Your task to perform on an android device: read, delete, or share a saved page in the chrome app Image 0: 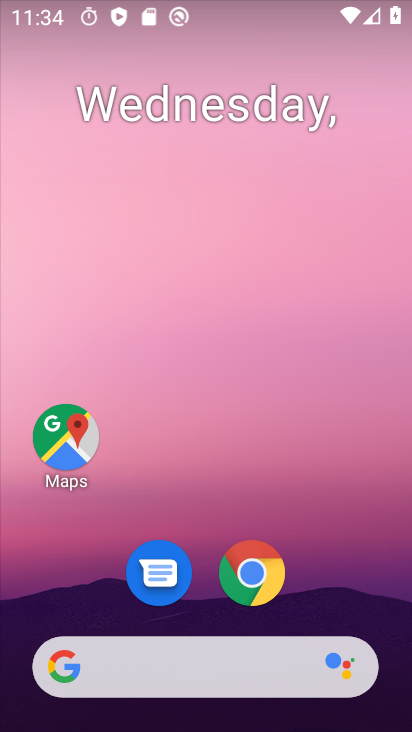
Step 0: click (370, 235)
Your task to perform on an android device: read, delete, or share a saved page in the chrome app Image 1: 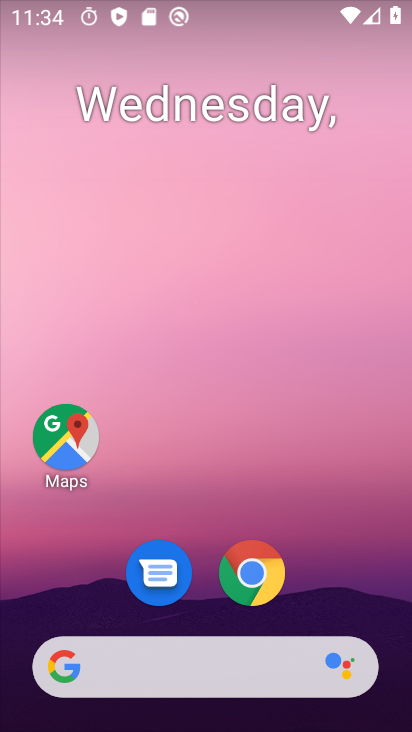
Step 1: drag from (375, 466) to (372, 176)
Your task to perform on an android device: read, delete, or share a saved page in the chrome app Image 2: 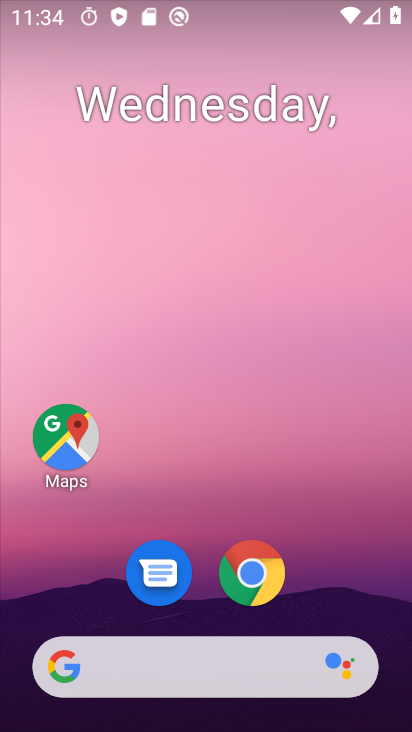
Step 2: click (257, 581)
Your task to perform on an android device: read, delete, or share a saved page in the chrome app Image 3: 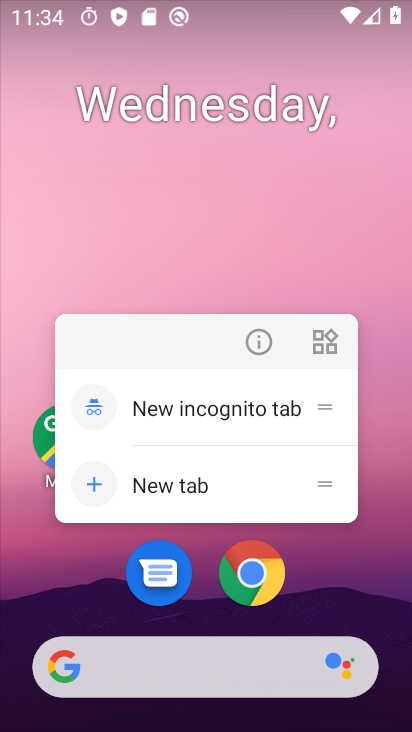
Step 3: click (254, 573)
Your task to perform on an android device: read, delete, or share a saved page in the chrome app Image 4: 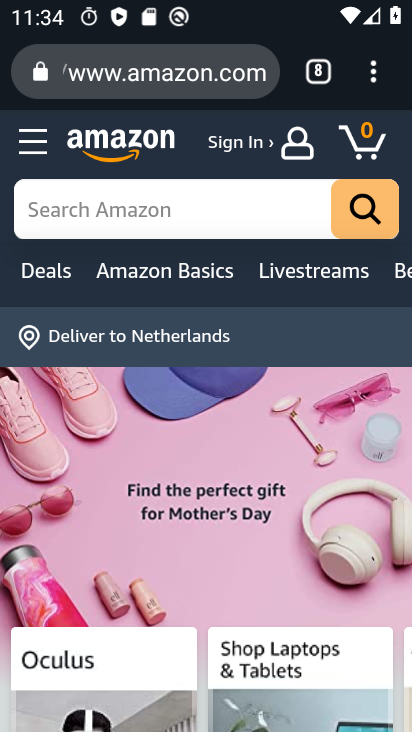
Step 4: click (374, 63)
Your task to perform on an android device: read, delete, or share a saved page in the chrome app Image 5: 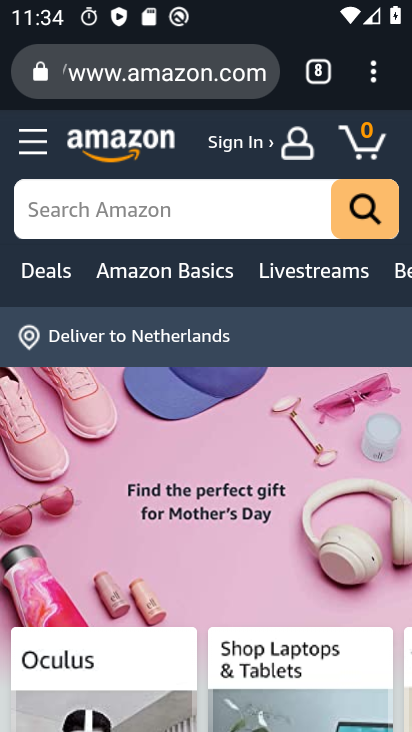
Step 5: click (374, 63)
Your task to perform on an android device: read, delete, or share a saved page in the chrome app Image 6: 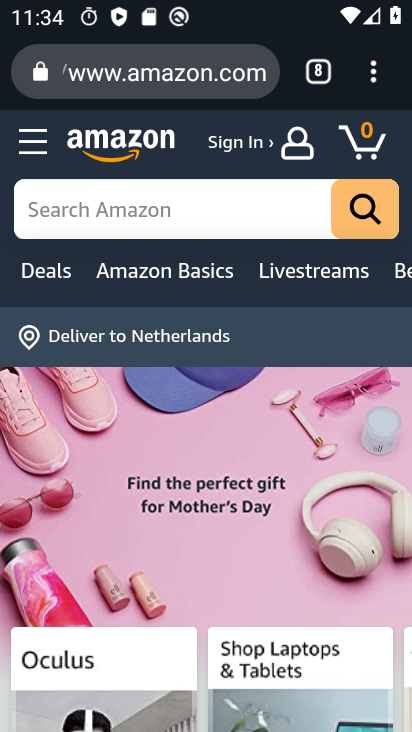
Step 6: click (372, 68)
Your task to perform on an android device: read, delete, or share a saved page in the chrome app Image 7: 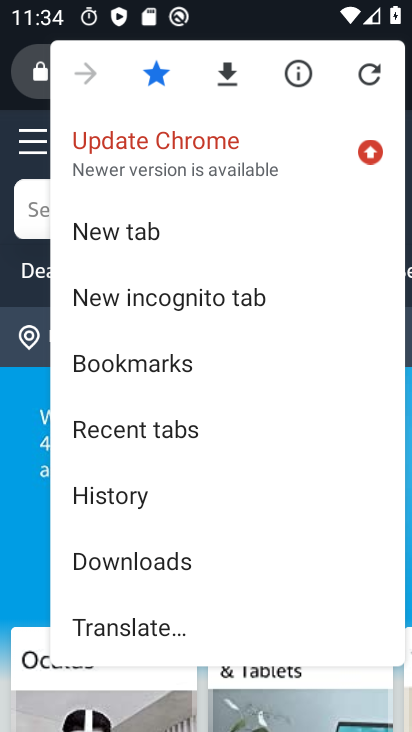
Step 7: drag from (277, 594) to (284, 288)
Your task to perform on an android device: read, delete, or share a saved page in the chrome app Image 8: 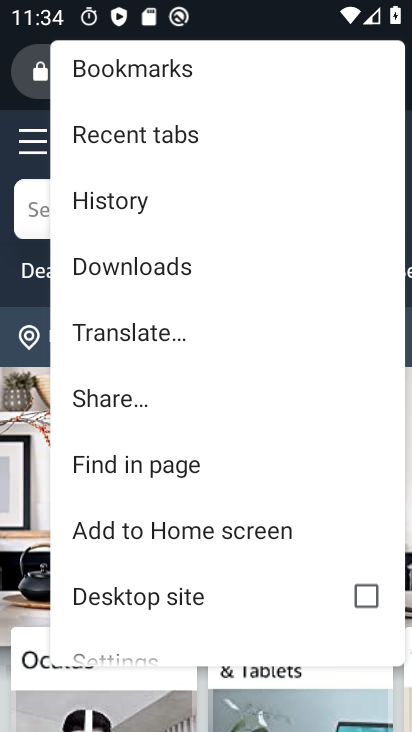
Step 8: drag from (325, 528) to (313, 273)
Your task to perform on an android device: read, delete, or share a saved page in the chrome app Image 9: 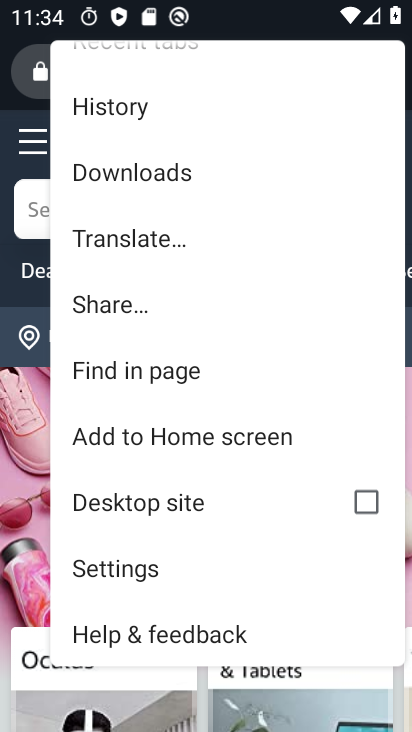
Step 9: drag from (255, 335) to (255, 222)
Your task to perform on an android device: read, delete, or share a saved page in the chrome app Image 10: 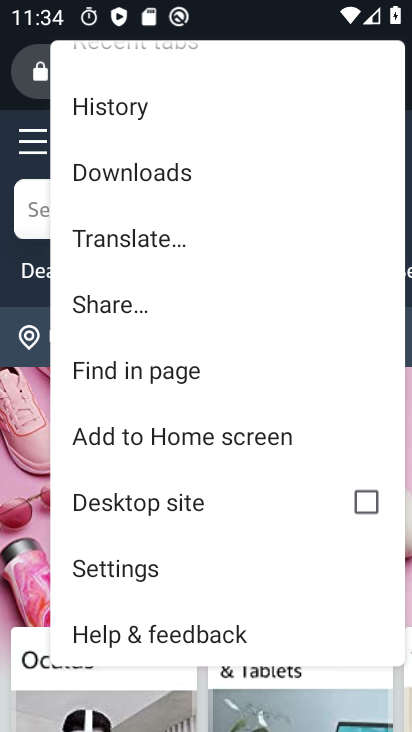
Step 10: drag from (277, 561) to (282, 182)
Your task to perform on an android device: read, delete, or share a saved page in the chrome app Image 11: 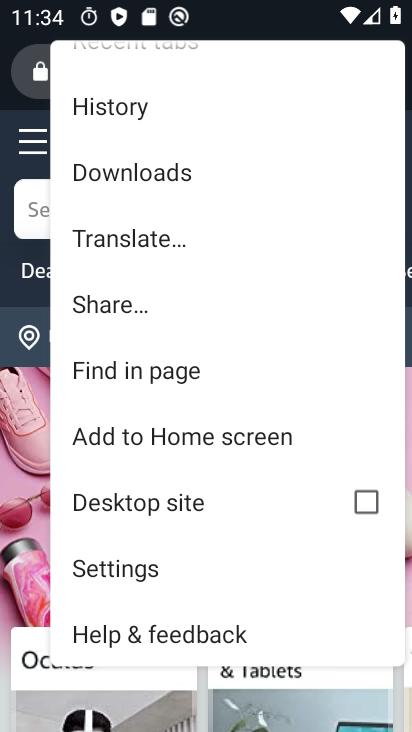
Step 11: click (121, 174)
Your task to perform on an android device: read, delete, or share a saved page in the chrome app Image 12: 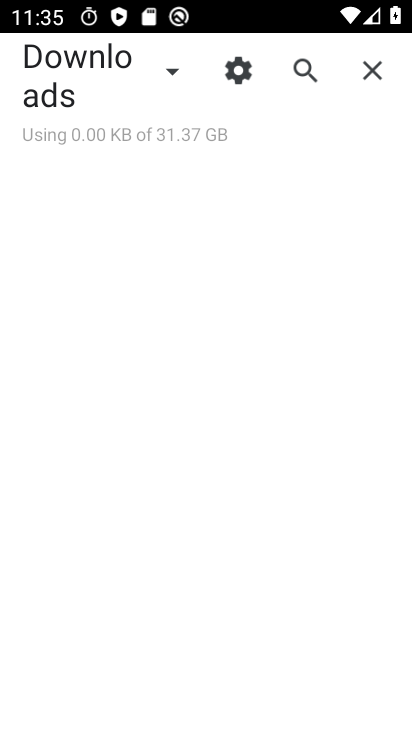
Step 12: task complete